Your task to perform on an android device: Go to wifi settings Image 0: 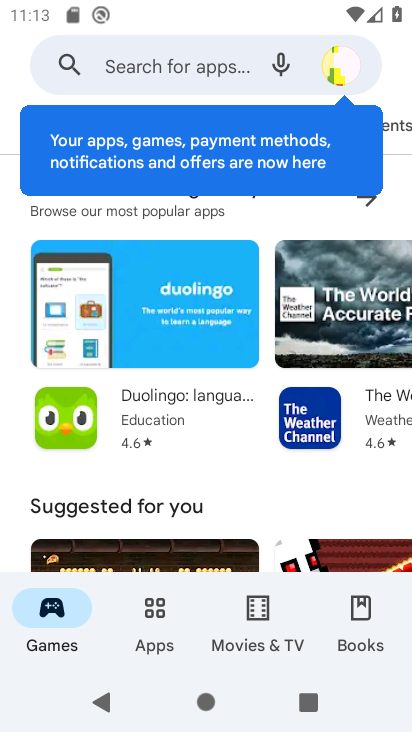
Step 0: press home button
Your task to perform on an android device: Go to wifi settings Image 1: 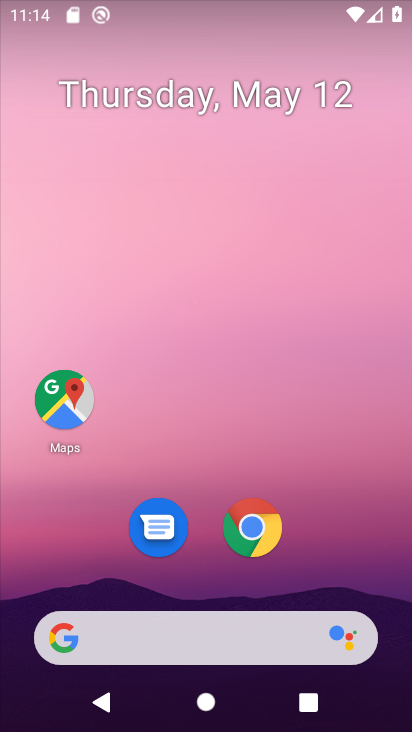
Step 1: drag from (297, 565) to (280, 10)
Your task to perform on an android device: Go to wifi settings Image 2: 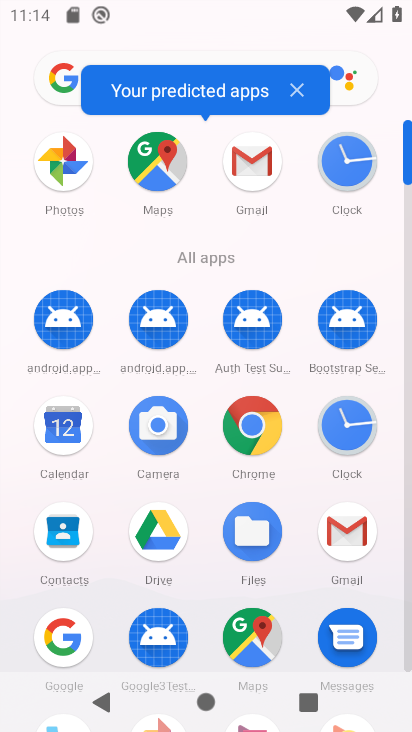
Step 2: click (293, 94)
Your task to perform on an android device: Go to wifi settings Image 3: 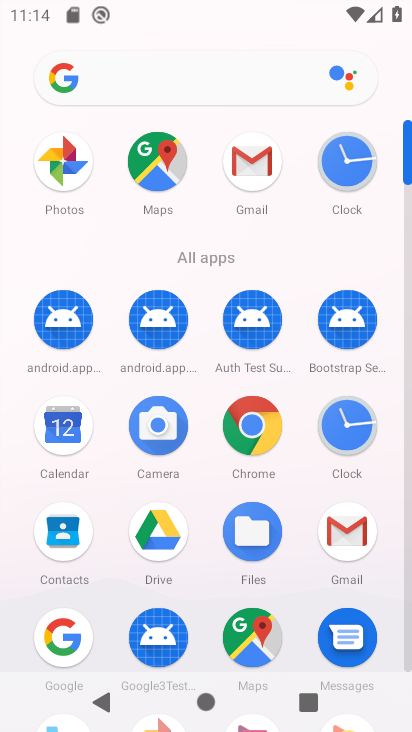
Step 3: drag from (316, 617) to (301, 337)
Your task to perform on an android device: Go to wifi settings Image 4: 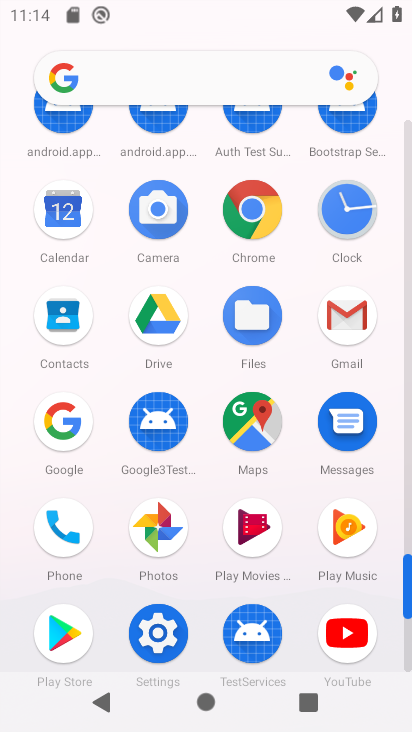
Step 4: click (151, 653)
Your task to perform on an android device: Go to wifi settings Image 5: 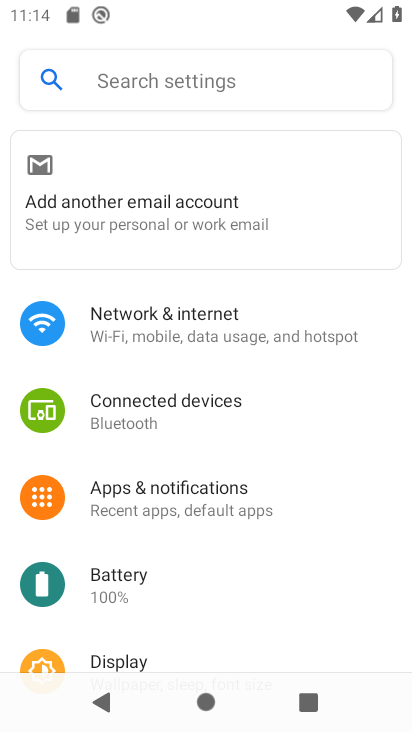
Step 5: click (124, 335)
Your task to perform on an android device: Go to wifi settings Image 6: 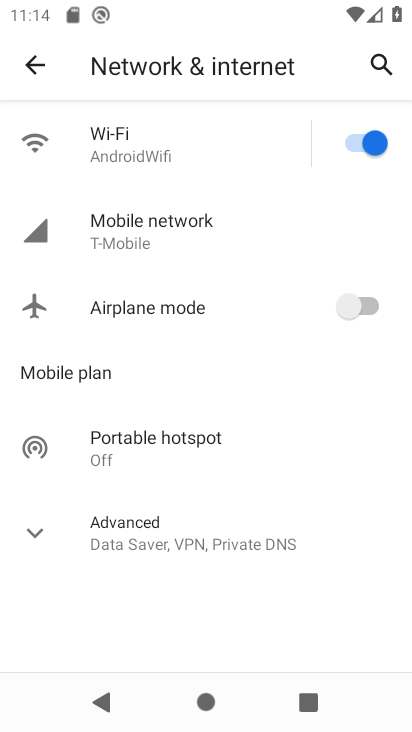
Step 6: task complete